Your task to perform on an android device: Is it going to rain tomorrow? Image 0: 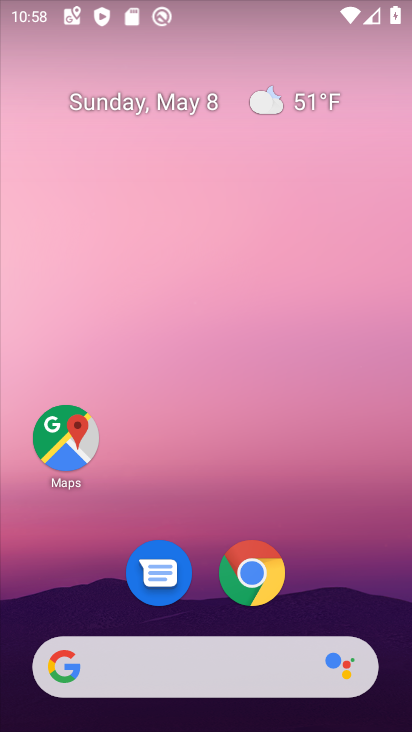
Step 0: drag from (164, 642) to (181, 89)
Your task to perform on an android device: Is it going to rain tomorrow? Image 1: 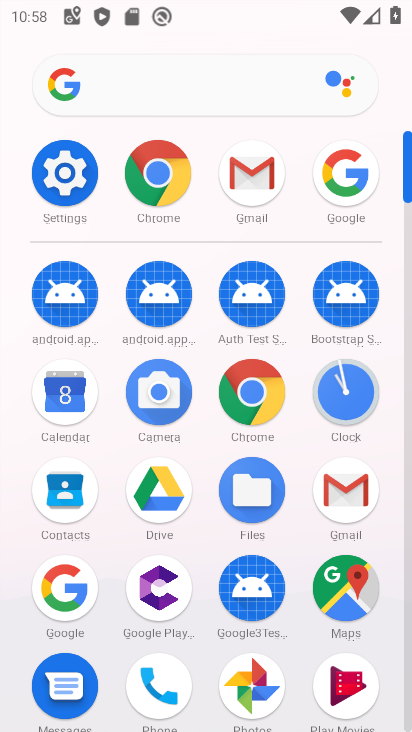
Step 1: click (57, 593)
Your task to perform on an android device: Is it going to rain tomorrow? Image 2: 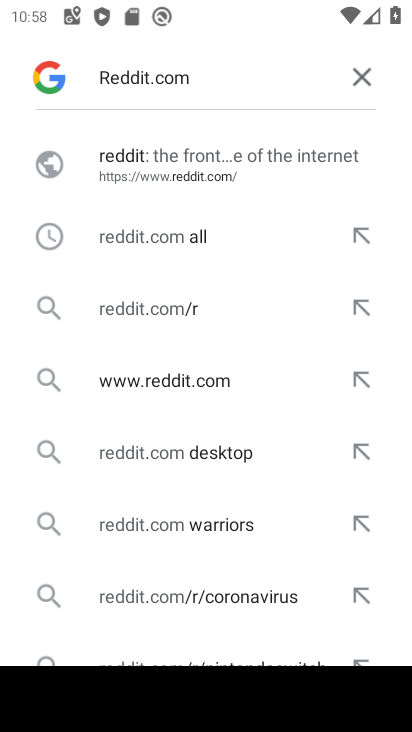
Step 2: type "is it going to rain tomorrow"
Your task to perform on an android device: Is it going to rain tomorrow? Image 3: 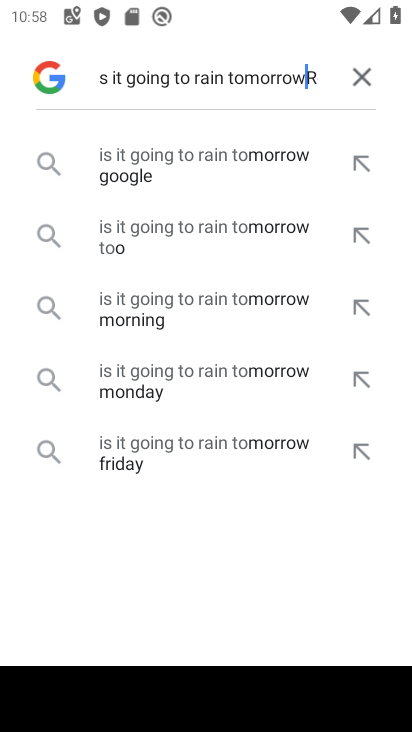
Step 3: click (201, 153)
Your task to perform on an android device: Is it going to rain tomorrow? Image 4: 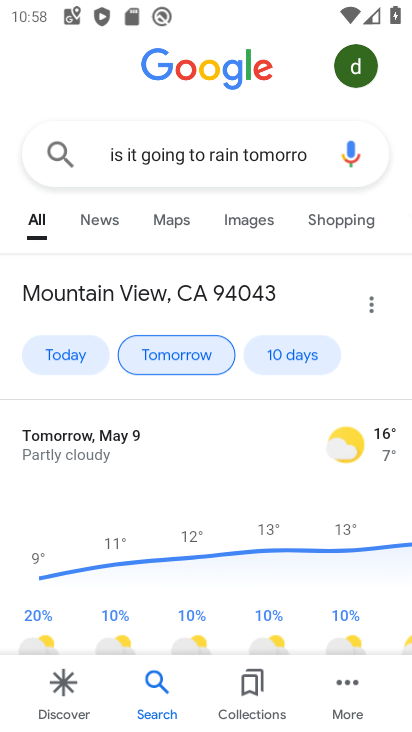
Step 4: drag from (195, 383) to (185, 345)
Your task to perform on an android device: Is it going to rain tomorrow? Image 5: 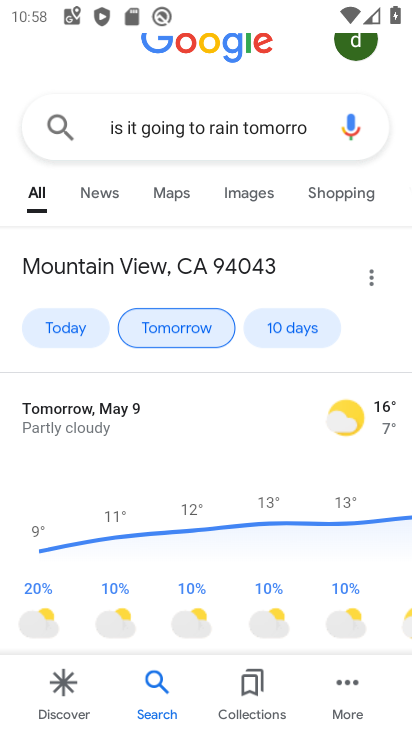
Step 5: drag from (196, 624) to (196, 386)
Your task to perform on an android device: Is it going to rain tomorrow? Image 6: 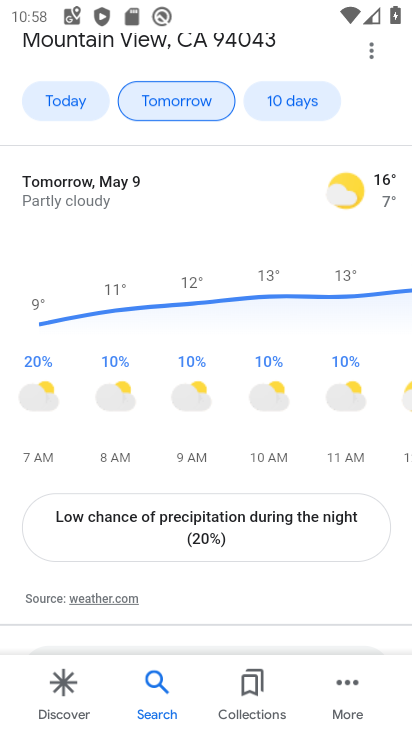
Step 6: drag from (159, 588) to (147, 302)
Your task to perform on an android device: Is it going to rain tomorrow? Image 7: 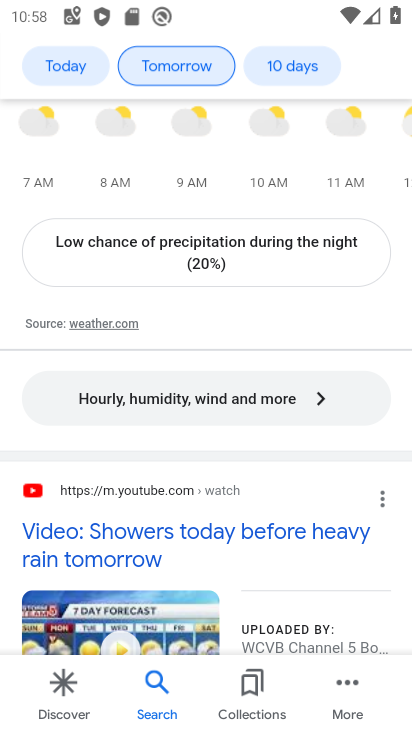
Step 7: click (145, 246)
Your task to perform on an android device: Is it going to rain tomorrow? Image 8: 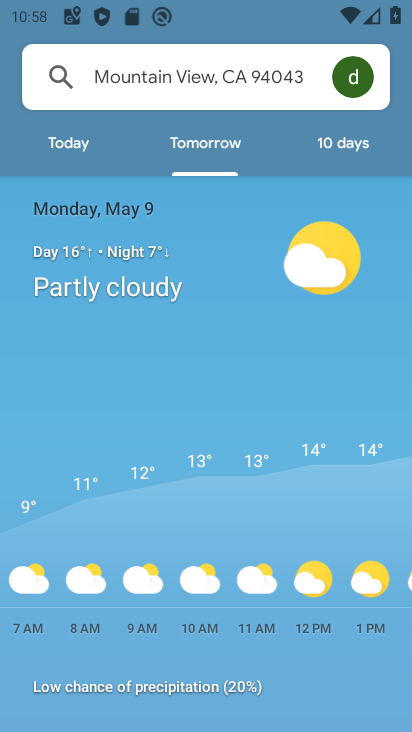
Step 8: task complete